Your task to perform on an android device: check battery use Image 0: 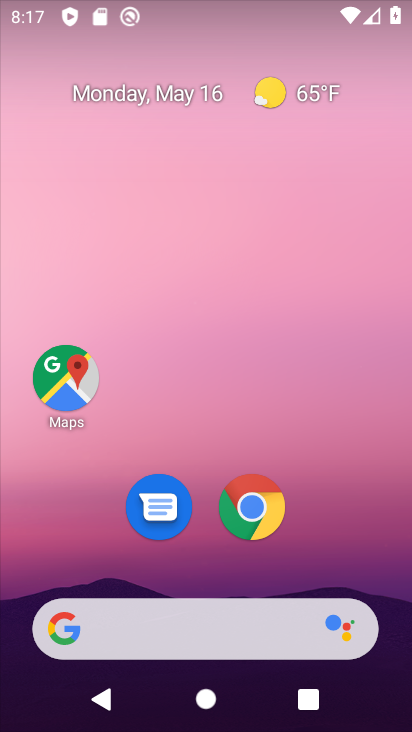
Step 0: drag from (220, 582) to (166, 29)
Your task to perform on an android device: check battery use Image 1: 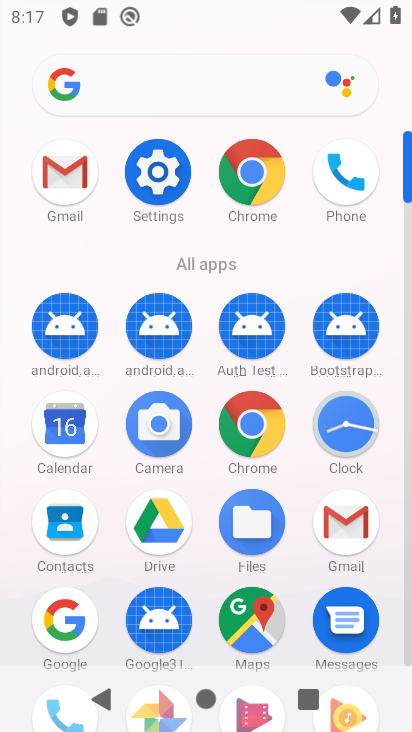
Step 1: click (178, 171)
Your task to perform on an android device: check battery use Image 2: 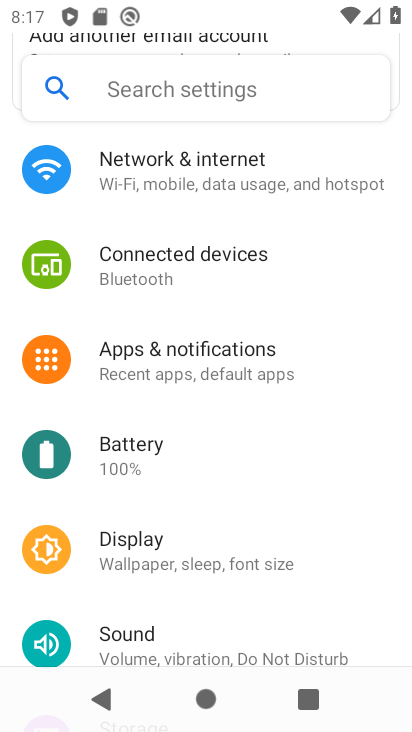
Step 2: click (175, 441)
Your task to perform on an android device: check battery use Image 3: 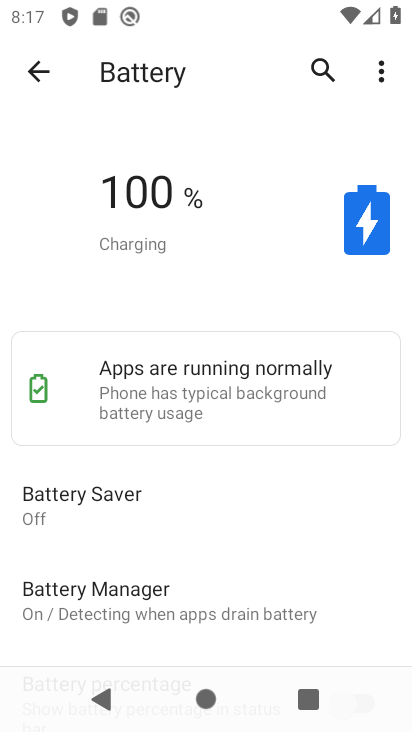
Step 3: task complete